Your task to perform on an android device: Open calendar and show me the first week of next month Image 0: 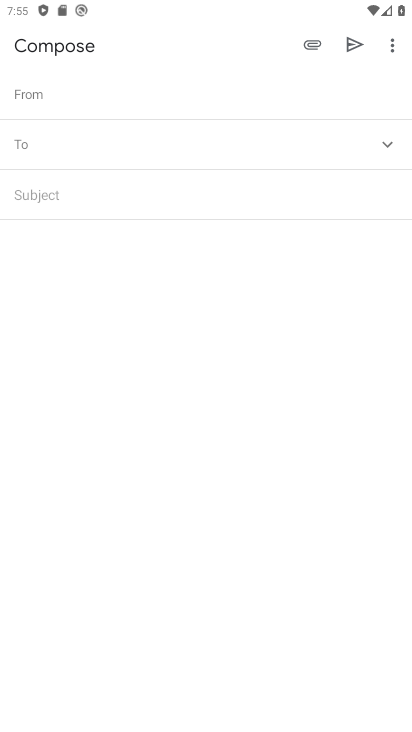
Step 0: press home button
Your task to perform on an android device: Open calendar and show me the first week of next month Image 1: 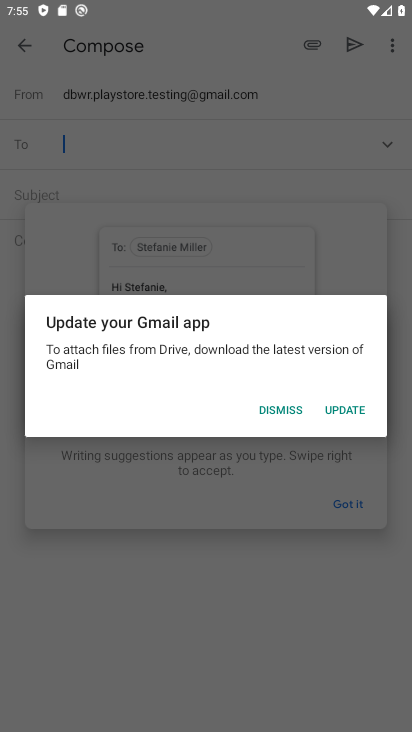
Step 1: click (284, 410)
Your task to perform on an android device: Open calendar and show me the first week of next month Image 2: 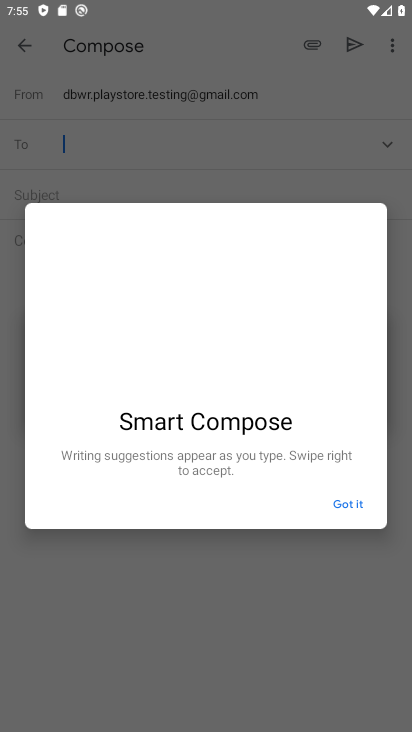
Step 2: press home button
Your task to perform on an android device: Open calendar and show me the first week of next month Image 3: 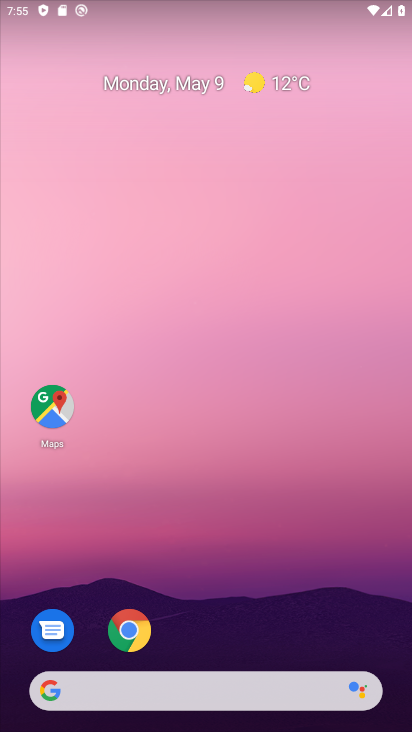
Step 3: drag from (138, 675) to (157, 189)
Your task to perform on an android device: Open calendar and show me the first week of next month Image 4: 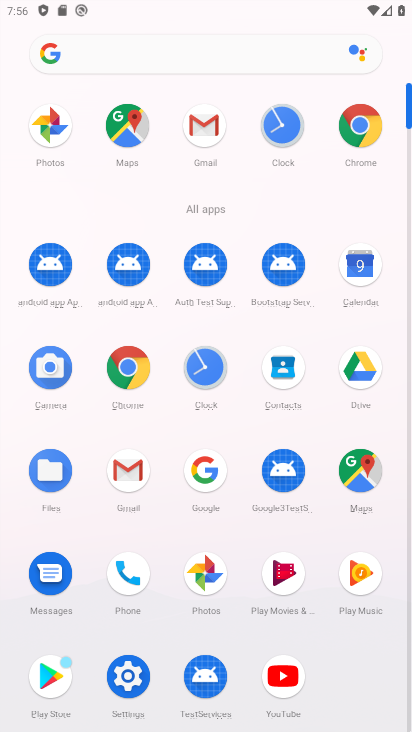
Step 4: click (355, 272)
Your task to perform on an android device: Open calendar and show me the first week of next month Image 5: 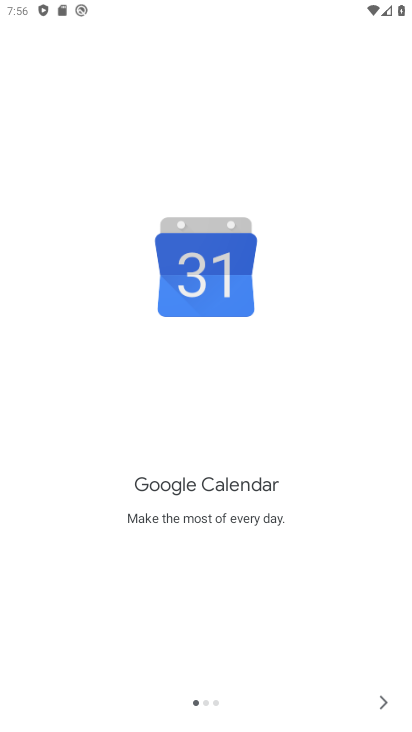
Step 5: click (380, 698)
Your task to perform on an android device: Open calendar and show me the first week of next month Image 6: 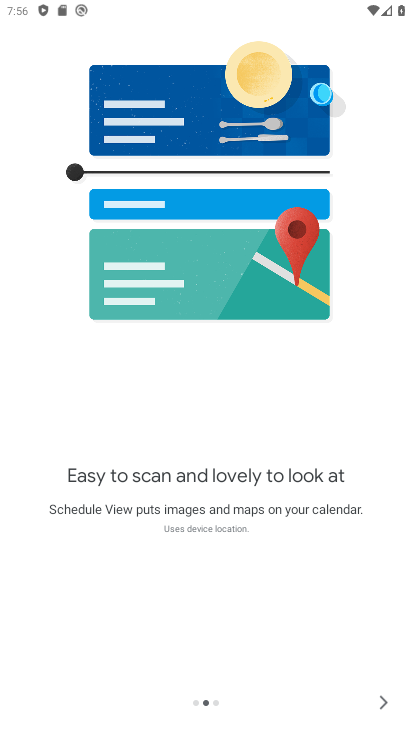
Step 6: click (380, 698)
Your task to perform on an android device: Open calendar and show me the first week of next month Image 7: 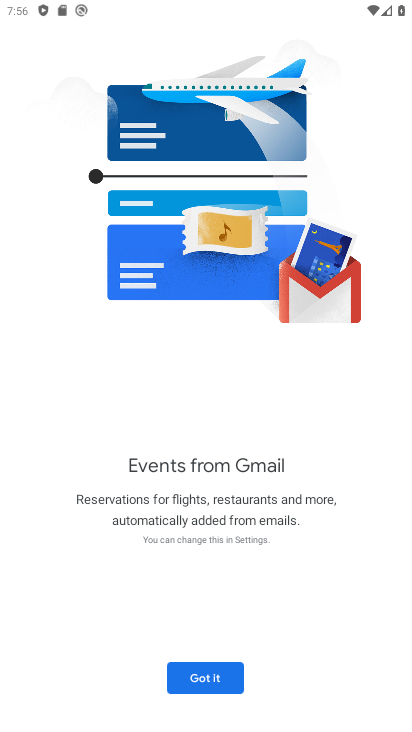
Step 7: click (232, 677)
Your task to perform on an android device: Open calendar and show me the first week of next month Image 8: 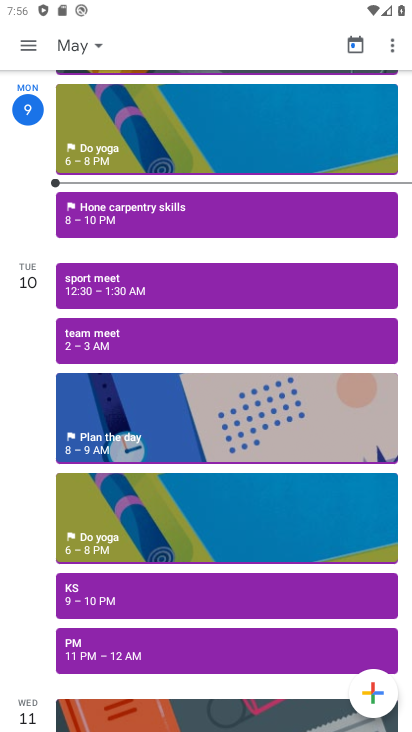
Step 8: click (70, 50)
Your task to perform on an android device: Open calendar and show me the first week of next month Image 9: 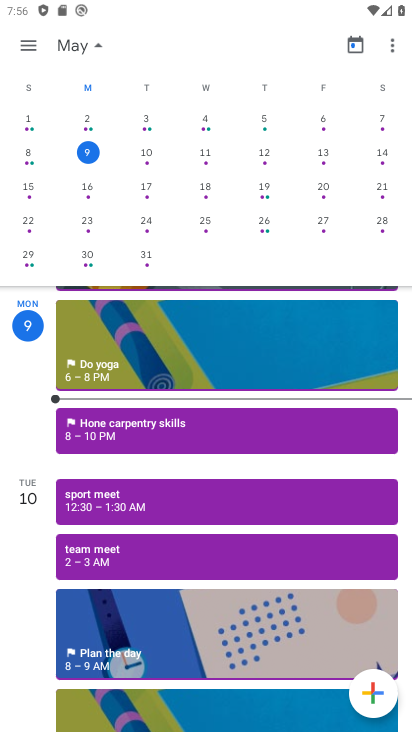
Step 9: task complete